Your task to perform on an android device: Search for seafood restaurants on Google Maps Image 0: 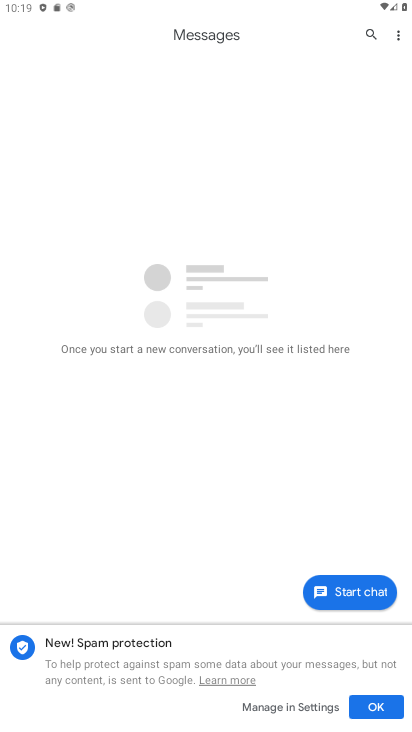
Step 0: drag from (248, 589) to (197, 226)
Your task to perform on an android device: Search for seafood restaurants on Google Maps Image 1: 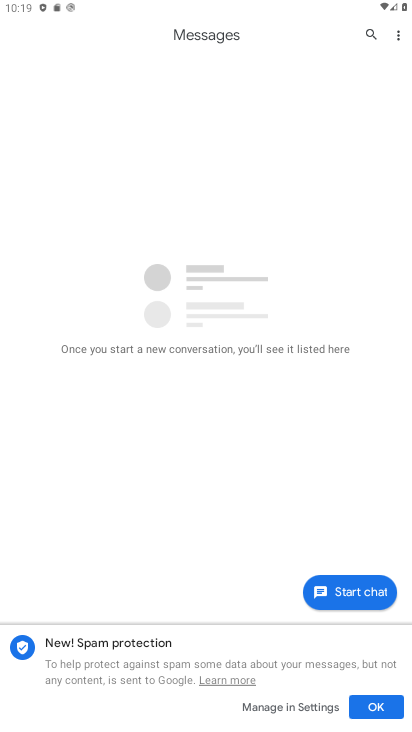
Step 1: press back button
Your task to perform on an android device: Search for seafood restaurants on Google Maps Image 2: 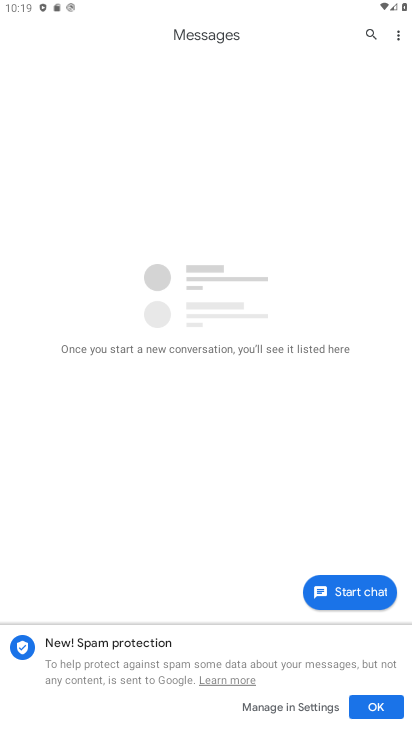
Step 2: press back button
Your task to perform on an android device: Search for seafood restaurants on Google Maps Image 3: 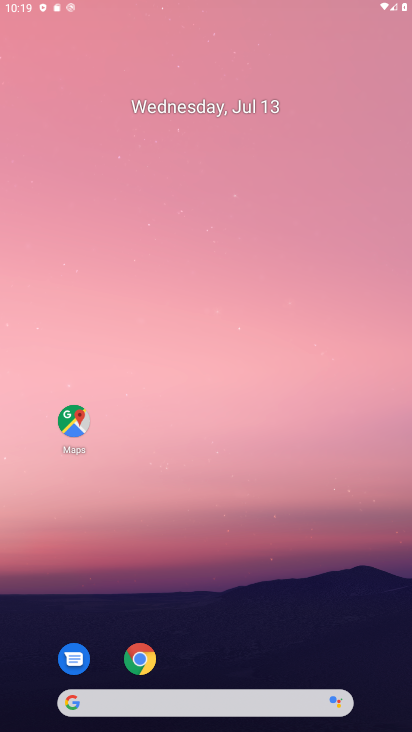
Step 3: press back button
Your task to perform on an android device: Search for seafood restaurants on Google Maps Image 4: 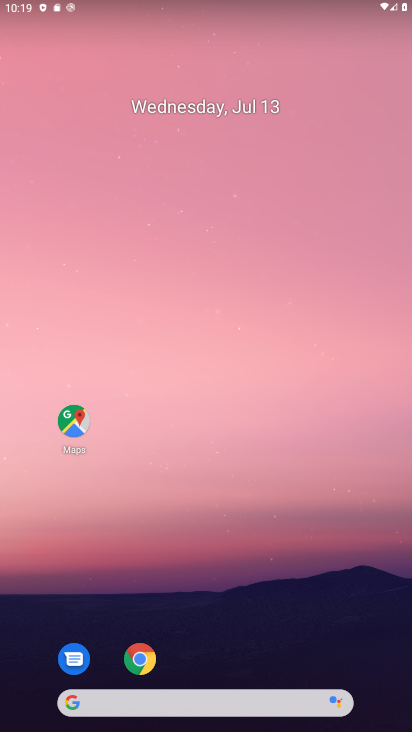
Step 4: click (227, 354)
Your task to perform on an android device: Search for seafood restaurants on Google Maps Image 5: 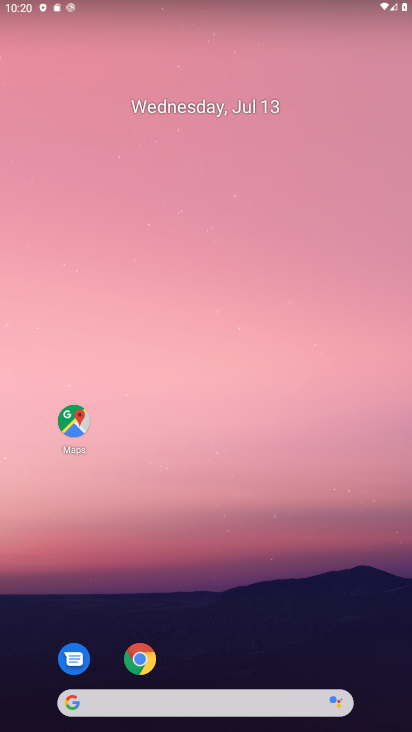
Step 5: drag from (275, 662) to (227, 278)
Your task to perform on an android device: Search for seafood restaurants on Google Maps Image 6: 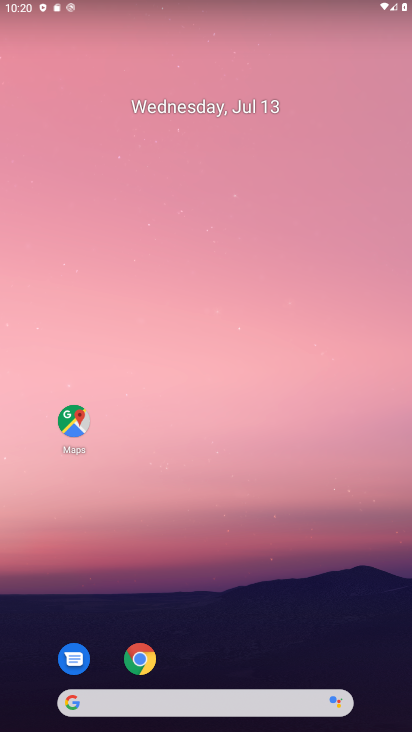
Step 6: drag from (323, 642) to (276, 242)
Your task to perform on an android device: Search for seafood restaurants on Google Maps Image 7: 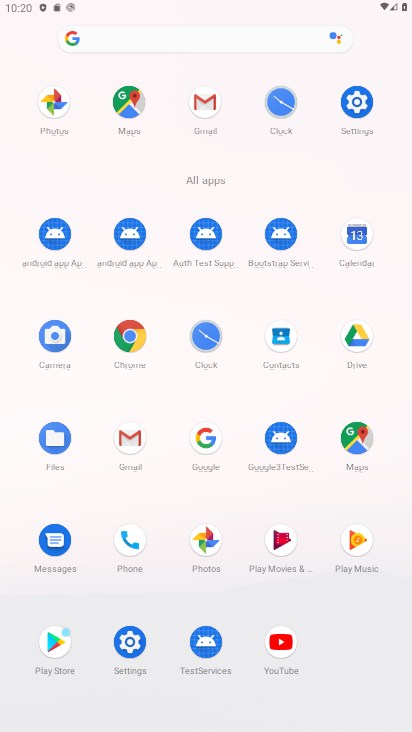
Step 7: drag from (254, 442) to (231, 285)
Your task to perform on an android device: Search for seafood restaurants on Google Maps Image 8: 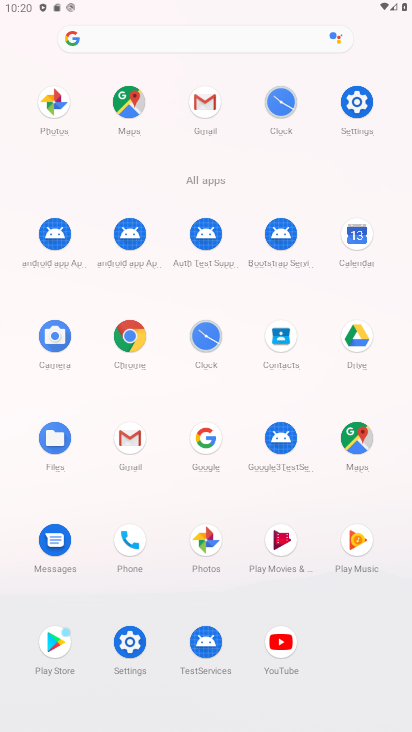
Step 8: click (119, 113)
Your task to perform on an android device: Search for seafood restaurants on Google Maps Image 9: 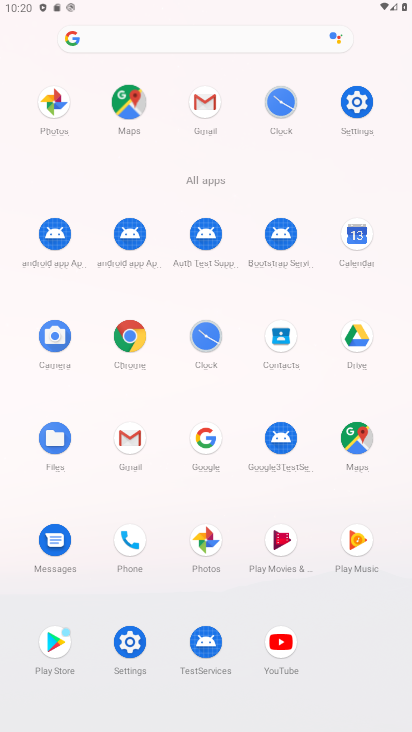
Step 9: click (119, 112)
Your task to perform on an android device: Search for seafood restaurants on Google Maps Image 10: 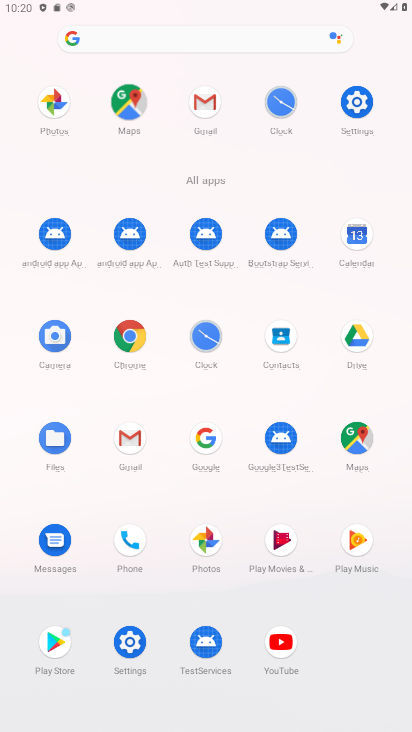
Step 10: click (124, 111)
Your task to perform on an android device: Search for seafood restaurants on Google Maps Image 11: 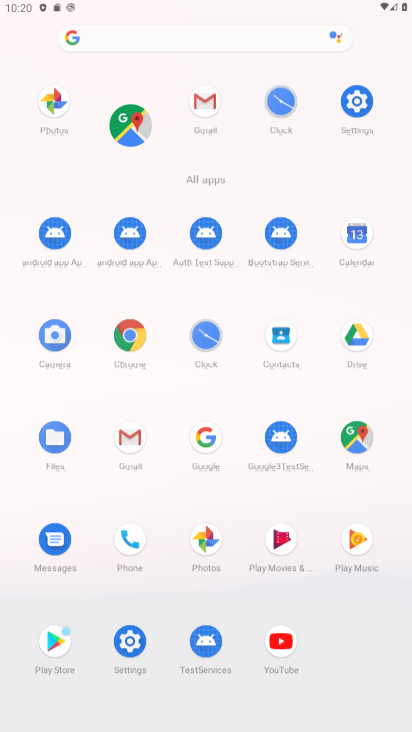
Step 11: click (132, 115)
Your task to perform on an android device: Search for seafood restaurants on Google Maps Image 12: 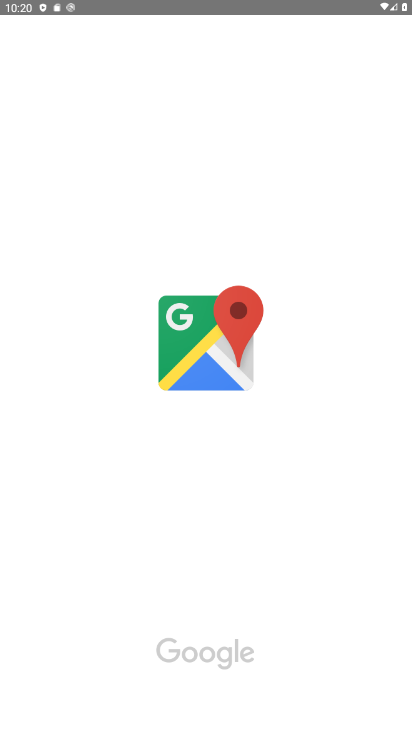
Step 12: click (136, 117)
Your task to perform on an android device: Search for seafood restaurants on Google Maps Image 13: 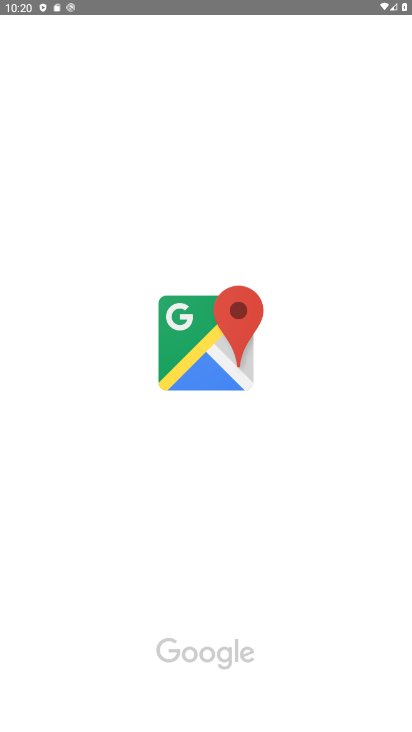
Step 13: click (139, 119)
Your task to perform on an android device: Search for seafood restaurants on Google Maps Image 14: 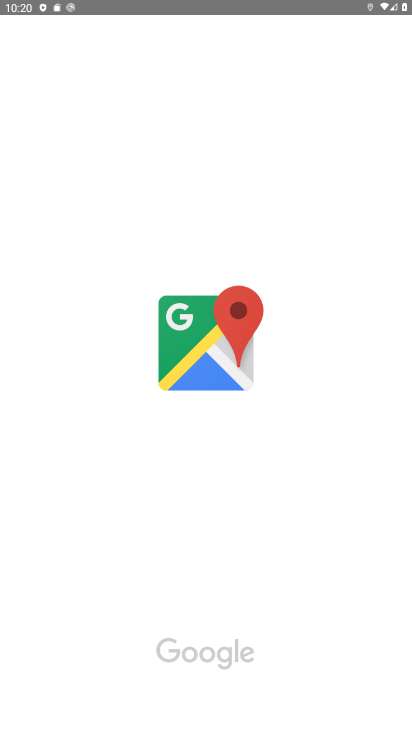
Step 14: click (151, 130)
Your task to perform on an android device: Search for seafood restaurants on Google Maps Image 15: 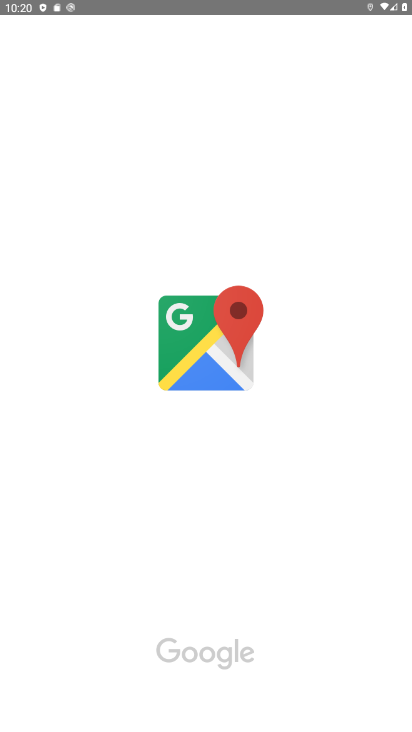
Step 15: click (260, 369)
Your task to perform on an android device: Search for seafood restaurants on Google Maps Image 16: 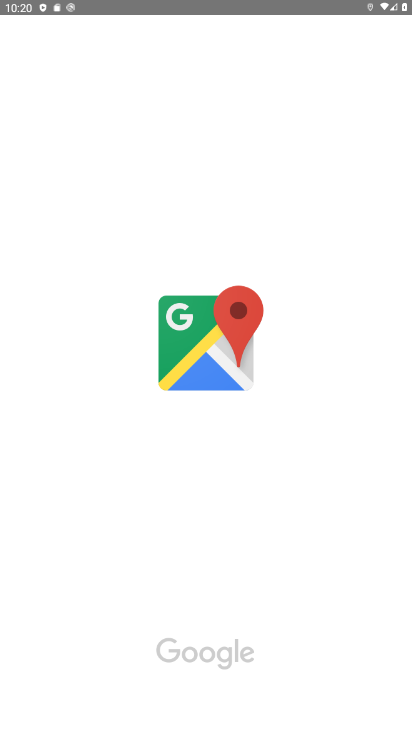
Step 16: click (264, 361)
Your task to perform on an android device: Search for seafood restaurants on Google Maps Image 17: 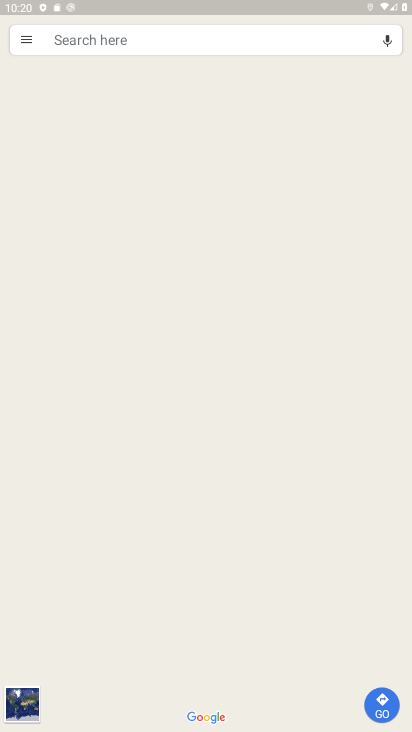
Step 17: click (272, 351)
Your task to perform on an android device: Search for seafood restaurants on Google Maps Image 18: 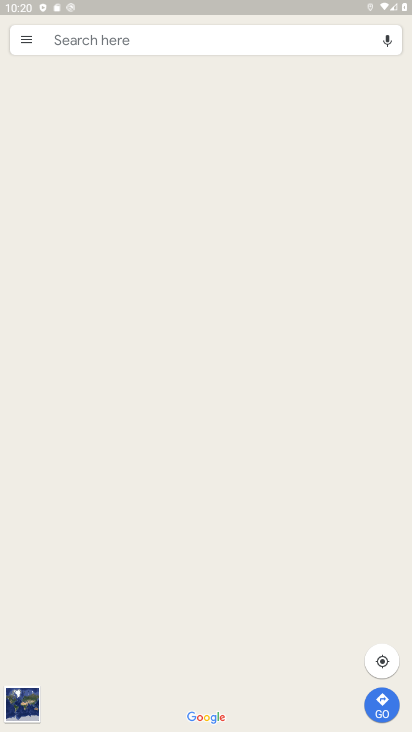
Step 18: click (272, 351)
Your task to perform on an android device: Search for seafood restaurants on Google Maps Image 19: 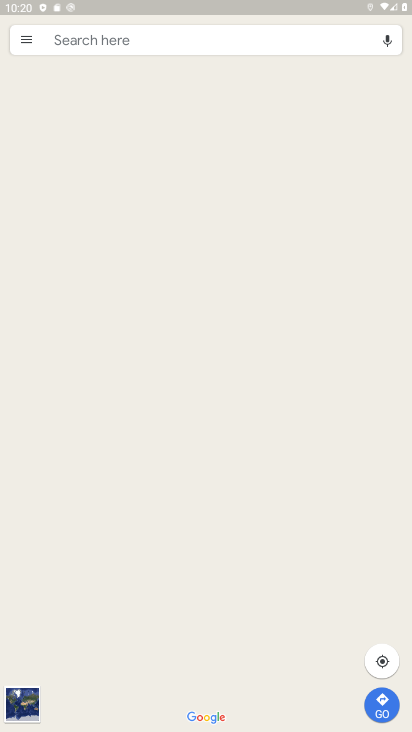
Step 19: click (272, 351)
Your task to perform on an android device: Search for seafood restaurants on Google Maps Image 20: 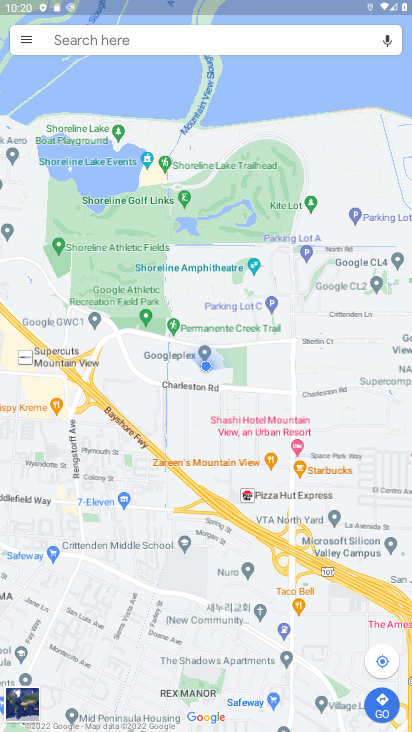
Step 20: click (88, 34)
Your task to perform on an android device: Search for seafood restaurants on Google Maps Image 21: 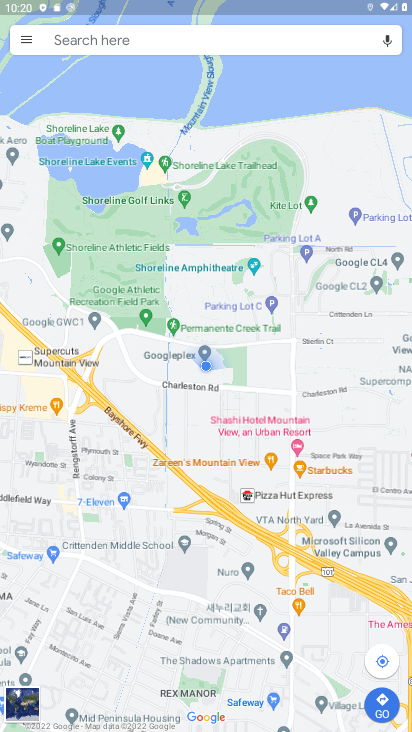
Step 21: click (119, 29)
Your task to perform on an android device: Search for seafood restaurants on Google Maps Image 22: 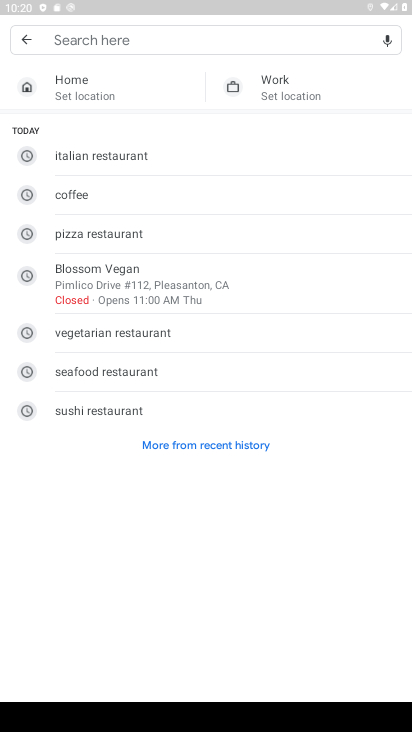
Step 22: click (160, 2)
Your task to perform on an android device: Search for seafood restaurants on Google Maps Image 23: 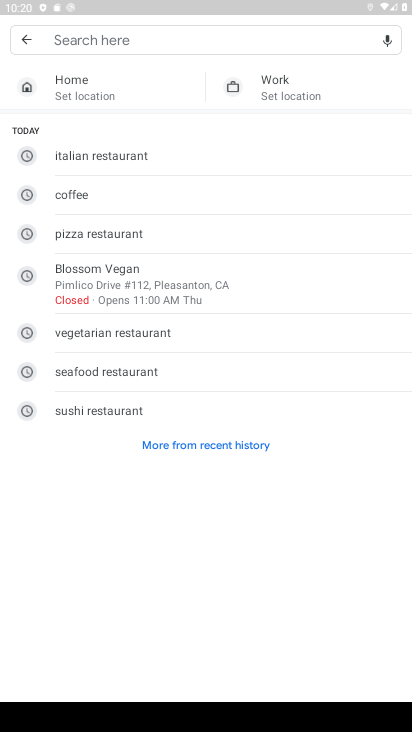
Step 23: click (133, 368)
Your task to perform on an android device: Search for seafood restaurants on Google Maps Image 24: 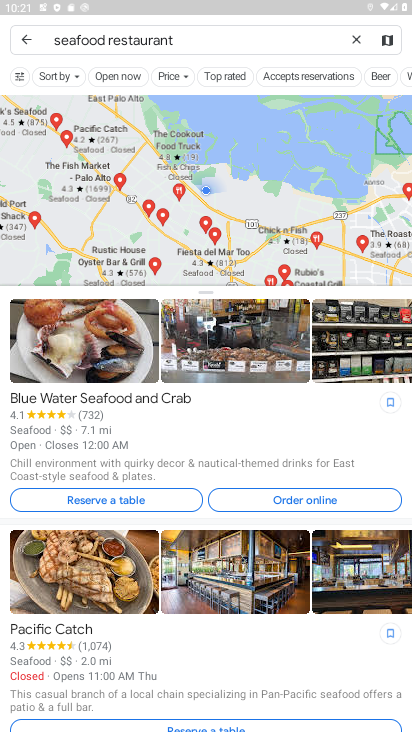
Step 24: task complete